Your task to perform on an android device: change text size in settings app Image 0: 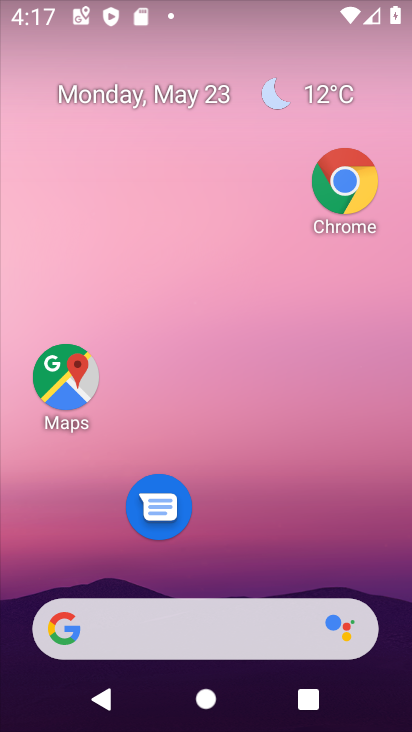
Step 0: drag from (268, 556) to (230, 107)
Your task to perform on an android device: change text size in settings app Image 1: 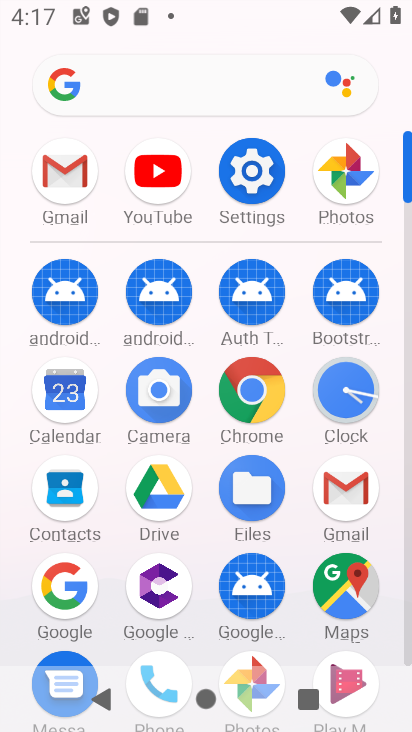
Step 1: click (260, 182)
Your task to perform on an android device: change text size in settings app Image 2: 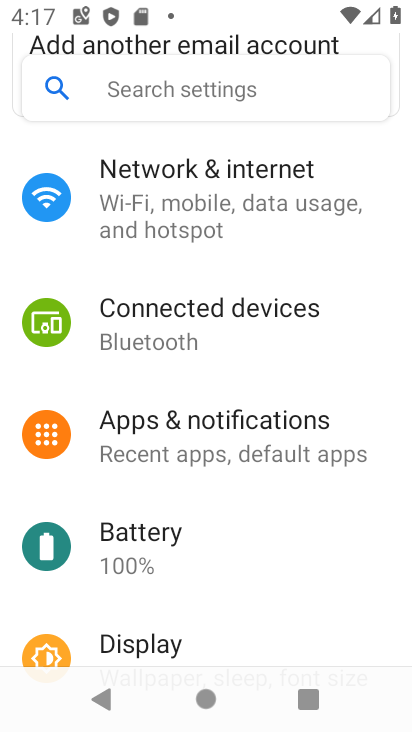
Step 2: click (155, 631)
Your task to perform on an android device: change text size in settings app Image 3: 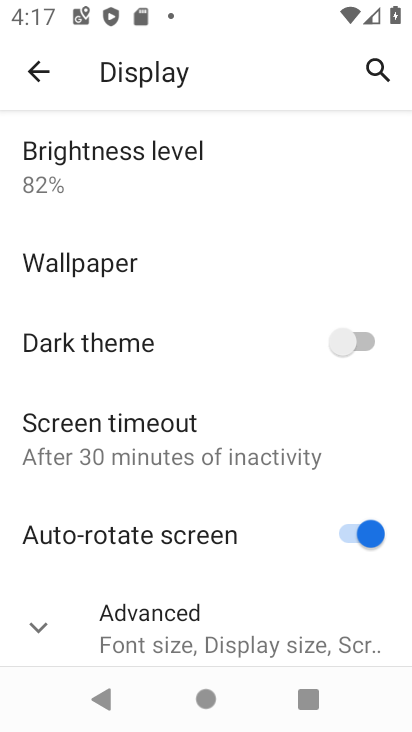
Step 3: click (172, 650)
Your task to perform on an android device: change text size in settings app Image 4: 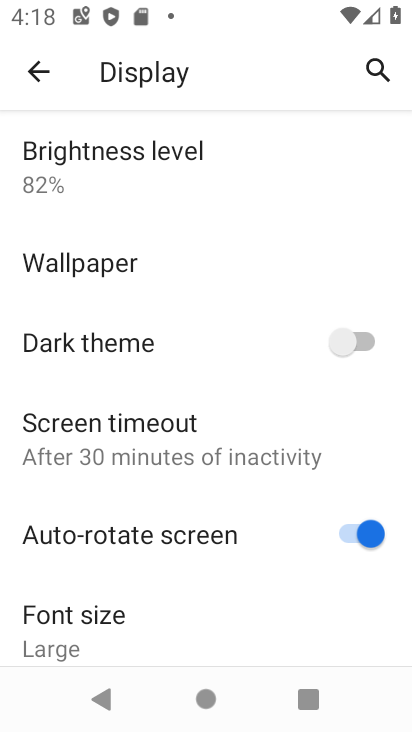
Step 4: click (172, 650)
Your task to perform on an android device: change text size in settings app Image 5: 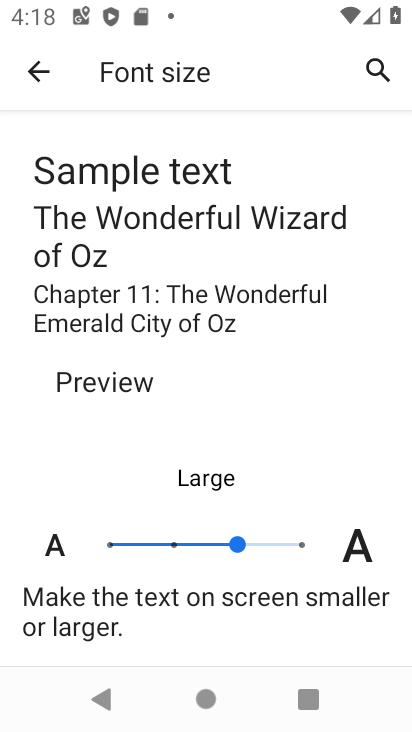
Step 5: click (113, 536)
Your task to perform on an android device: change text size in settings app Image 6: 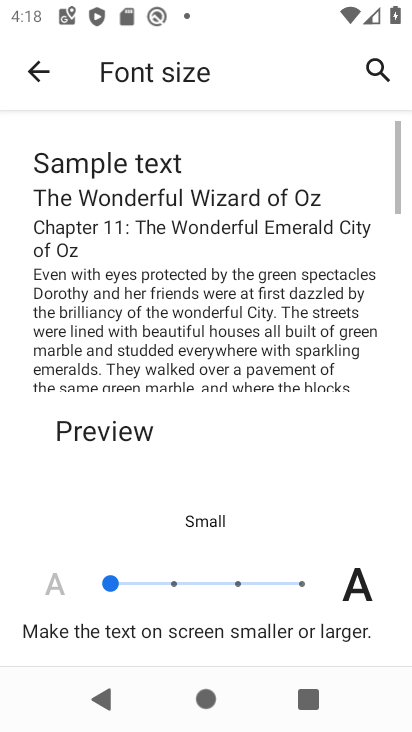
Step 6: task complete